Your task to perform on an android device: Go to calendar. Show me events next week Image 0: 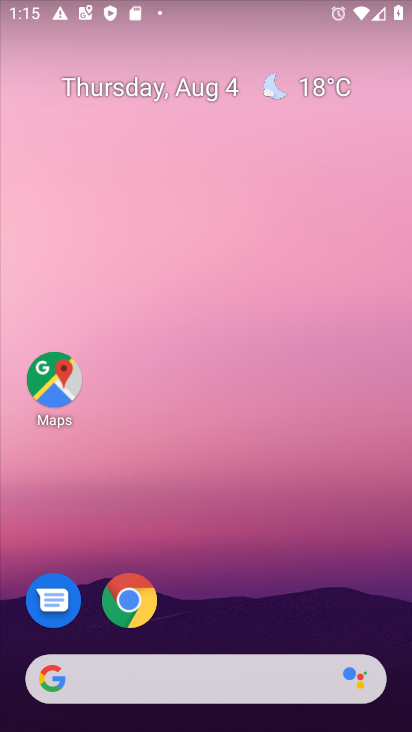
Step 0: drag from (222, 642) to (341, 100)
Your task to perform on an android device: Go to calendar. Show me events next week Image 1: 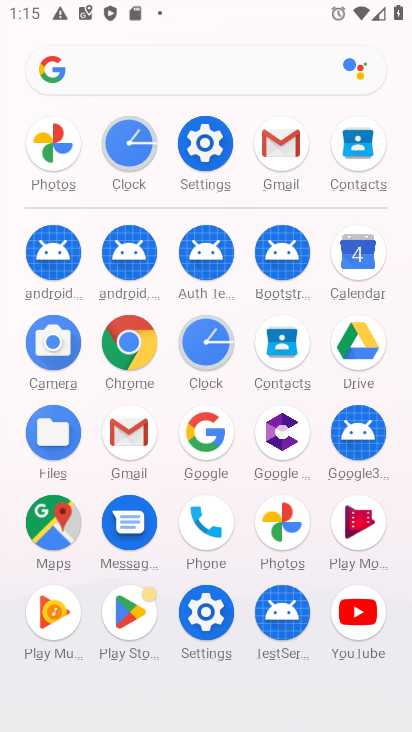
Step 1: click (356, 260)
Your task to perform on an android device: Go to calendar. Show me events next week Image 2: 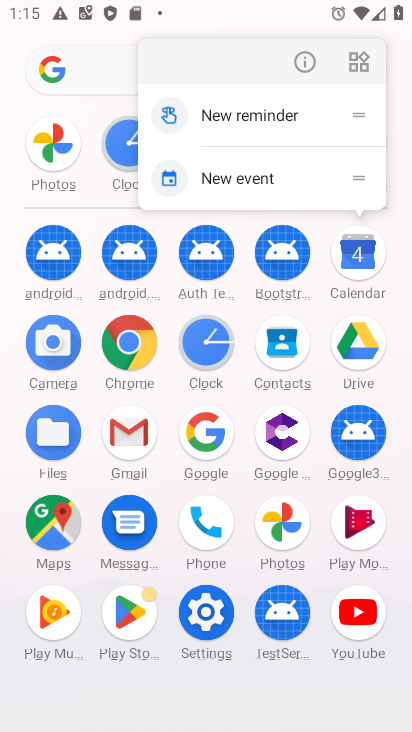
Step 2: click (356, 259)
Your task to perform on an android device: Go to calendar. Show me events next week Image 3: 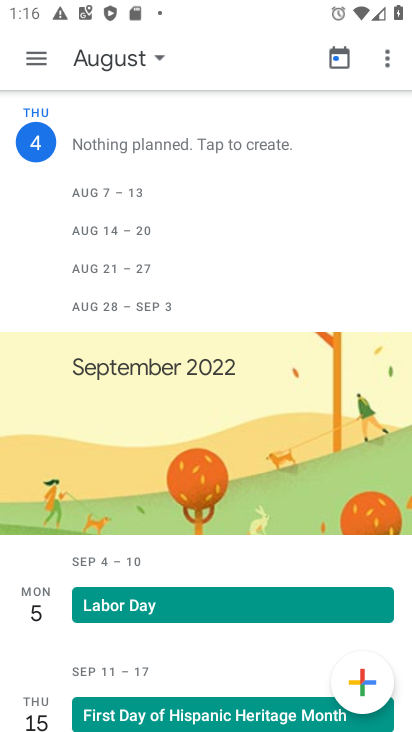
Step 3: click (95, 53)
Your task to perform on an android device: Go to calendar. Show me events next week Image 4: 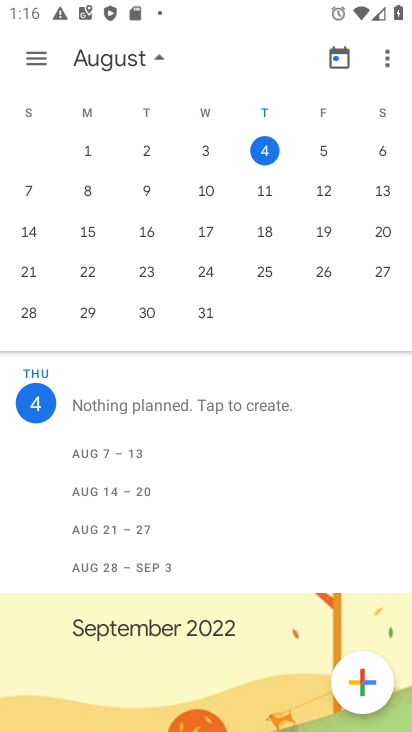
Step 4: click (30, 191)
Your task to perform on an android device: Go to calendar. Show me events next week Image 5: 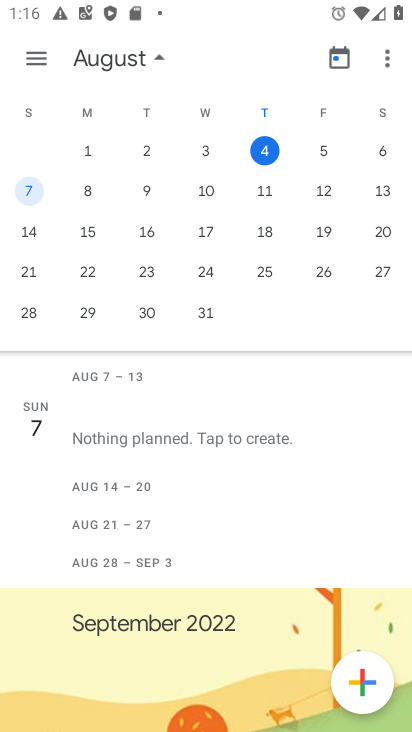
Step 5: click (31, 67)
Your task to perform on an android device: Go to calendar. Show me events next week Image 6: 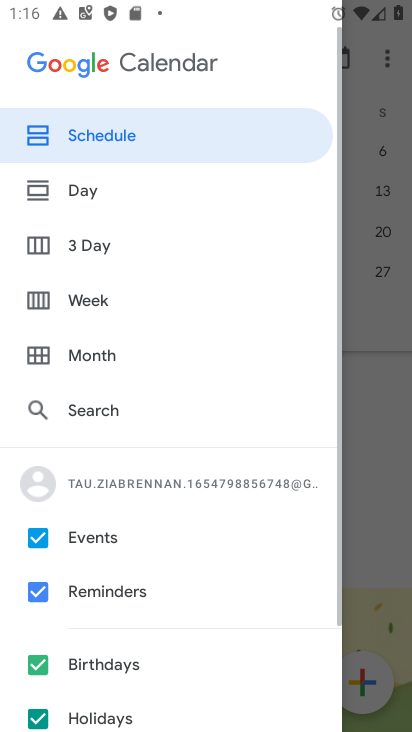
Step 6: click (81, 304)
Your task to perform on an android device: Go to calendar. Show me events next week Image 7: 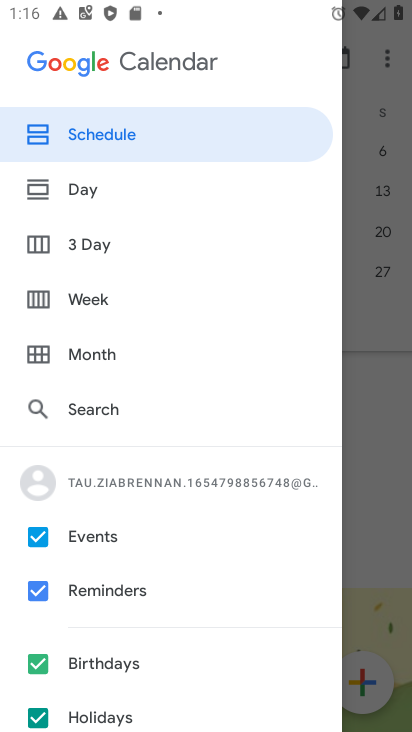
Step 7: click (85, 296)
Your task to perform on an android device: Go to calendar. Show me events next week Image 8: 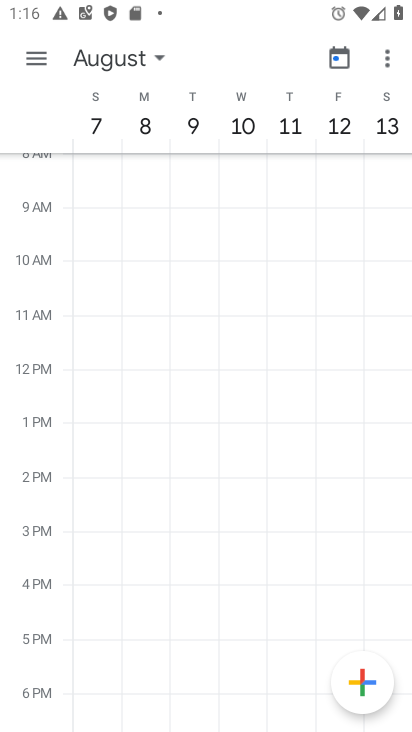
Step 8: click (33, 47)
Your task to perform on an android device: Go to calendar. Show me events next week Image 9: 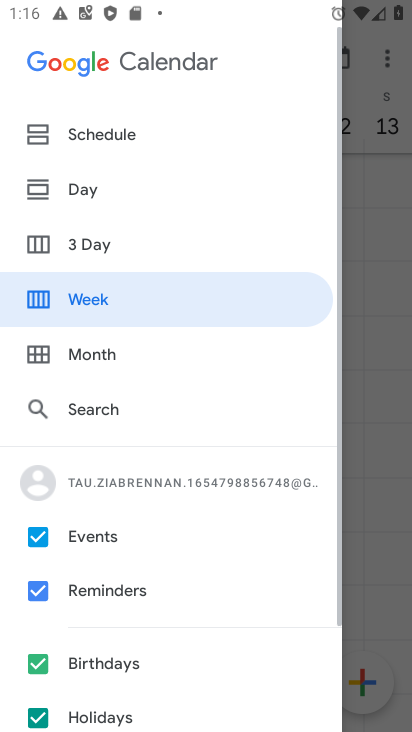
Step 9: click (116, 138)
Your task to perform on an android device: Go to calendar. Show me events next week Image 10: 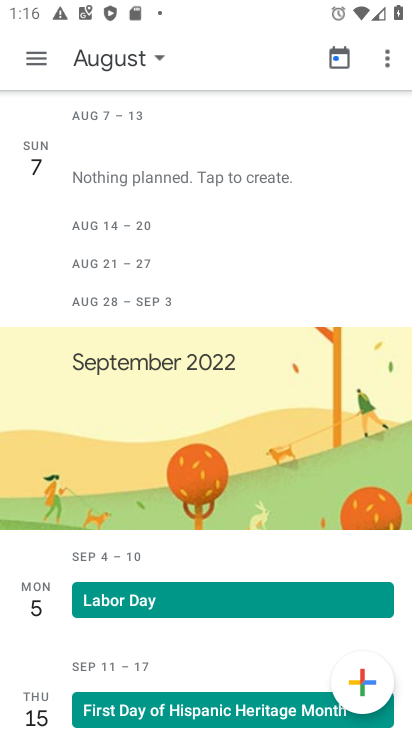
Step 10: task complete